Your task to perform on an android device: move an email to a new category in the gmail app Image 0: 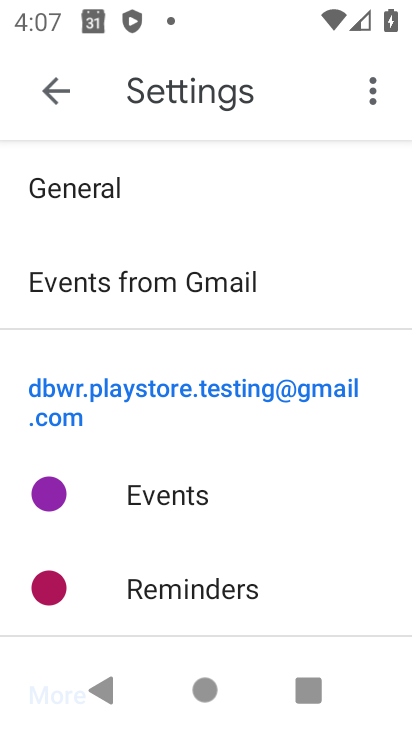
Step 0: press home button
Your task to perform on an android device: move an email to a new category in the gmail app Image 1: 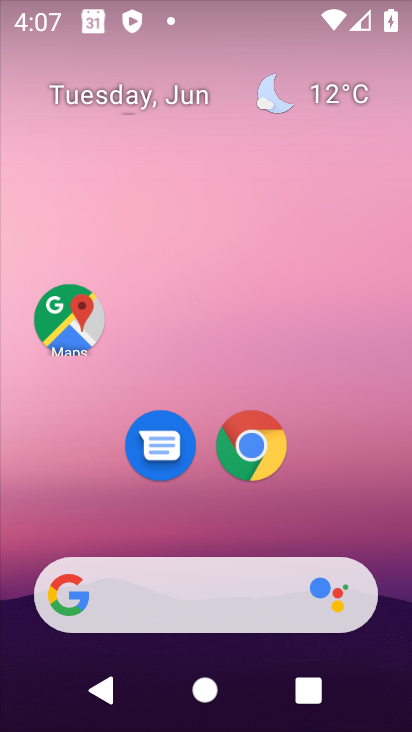
Step 1: drag from (306, 430) to (294, 62)
Your task to perform on an android device: move an email to a new category in the gmail app Image 2: 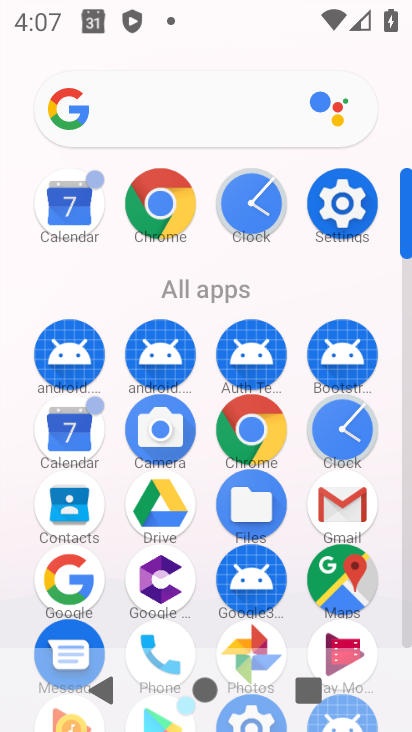
Step 2: click (353, 503)
Your task to perform on an android device: move an email to a new category in the gmail app Image 3: 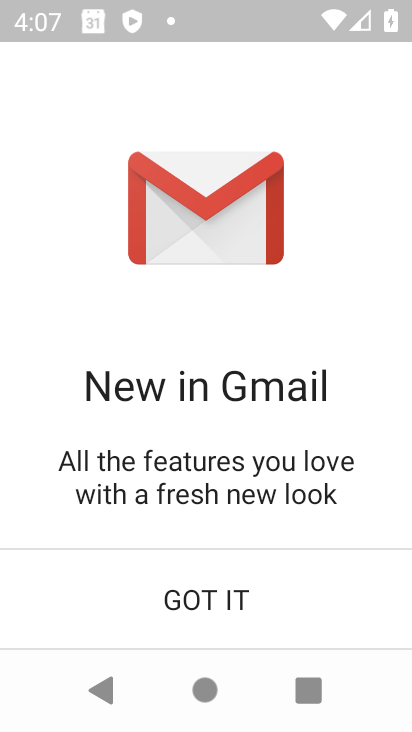
Step 3: click (274, 592)
Your task to perform on an android device: move an email to a new category in the gmail app Image 4: 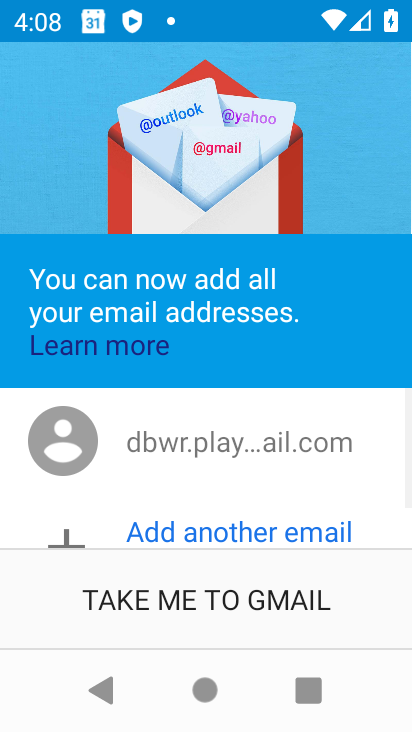
Step 4: click (233, 605)
Your task to perform on an android device: move an email to a new category in the gmail app Image 5: 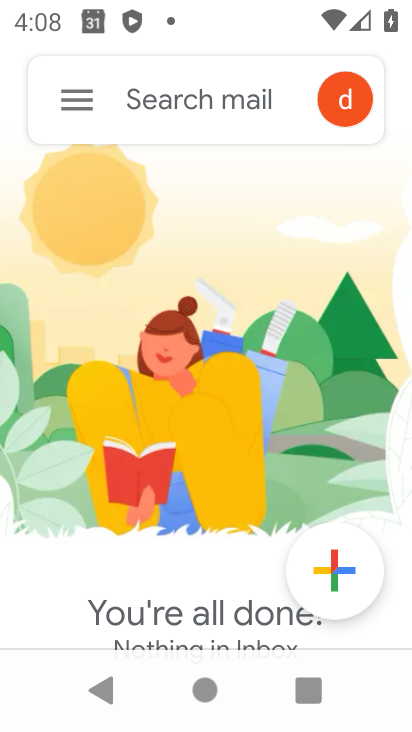
Step 5: task complete